Your task to perform on an android device: open app "eBay: The shopping marketplace" Image 0: 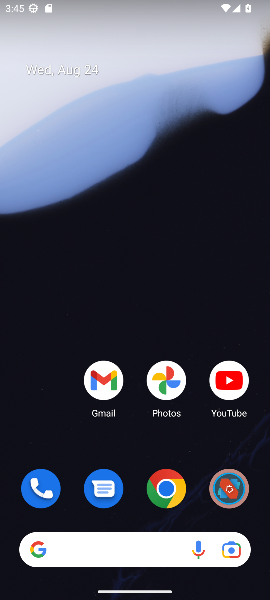
Step 0: drag from (136, 520) to (158, 94)
Your task to perform on an android device: open app "eBay: The shopping marketplace" Image 1: 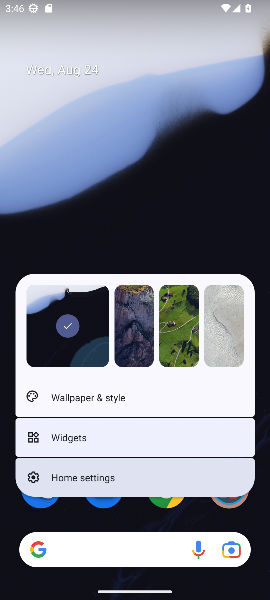
Step 1: click (127, 168)
Your task to perform on an android device: open app "eBay: The shopping marketplace" Image 2: 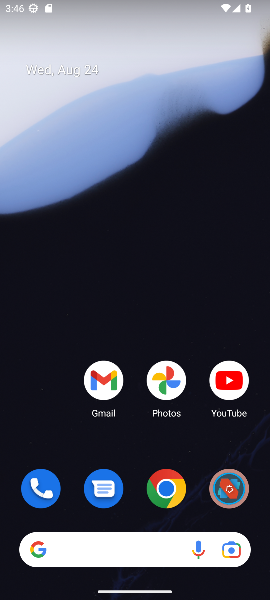
Step 2: drag from (132, 515) to (269, 1)
Your task to perform on an android device: open app "eBay: The shopping marketplace" Image 3: 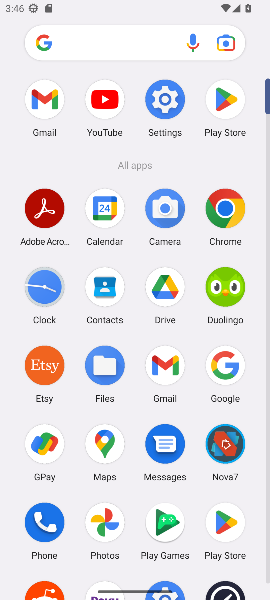
Step 3: click (212, 110)
Your task to perform on an android device: open app "eBay: The shopping marketplace" Image 4: 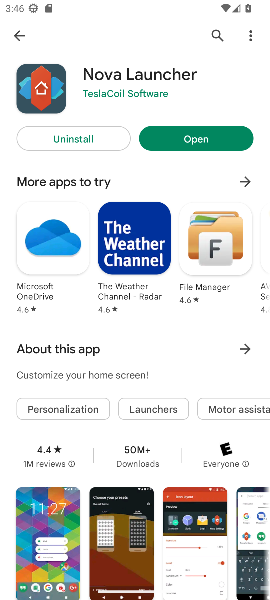
Step 4: click (226, 30)
Your task to perform on an android device: open app "eBay: The shopping marketplace" Image 5: 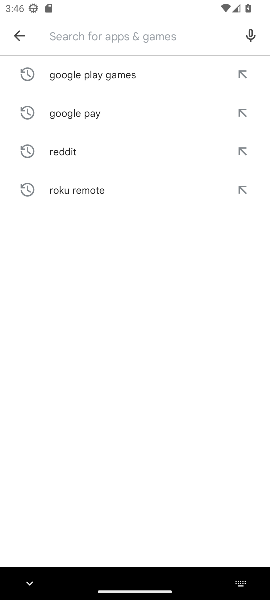
Step 5: type "ebay"
Your task to perform on an android device: open app "eBay: The shopping marketplace" Image 6: 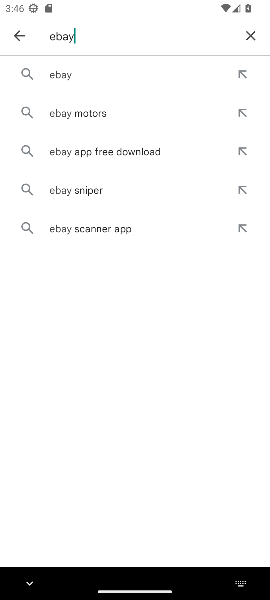
Step 6: click (77, 56)
Your task to perform on an android device: open app "eBay: The shopping marketplace" Image 7: 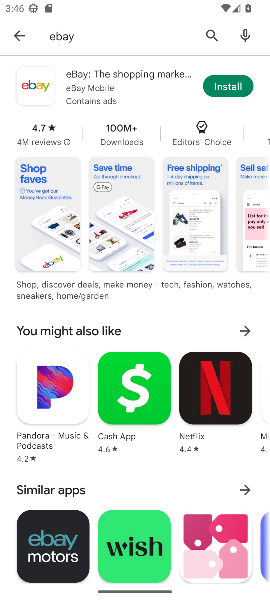
Step 7: click (234, 81)
Your task to perform on an android device: open app "eBay: The shopping marketplace" Image 8: 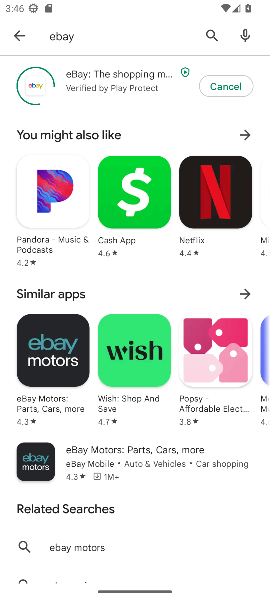
Step 8: task complete